Your task to perform on an android device: toggle wifi Image 0: 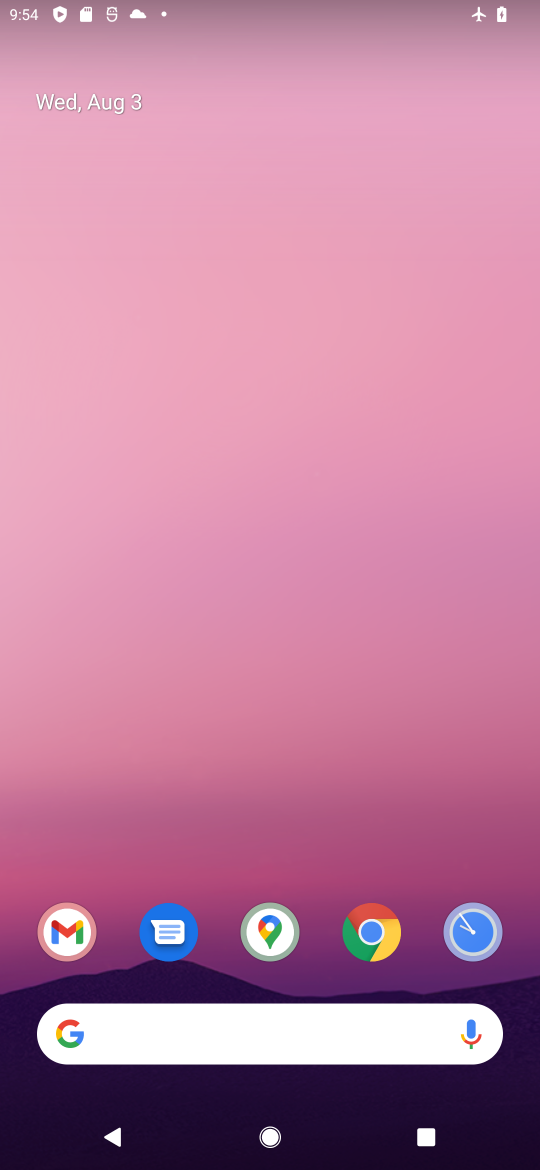
Step 0: drag from (408, 892) to (249, 66)
Your task to perform on an android device: toggle wifi Image 1: 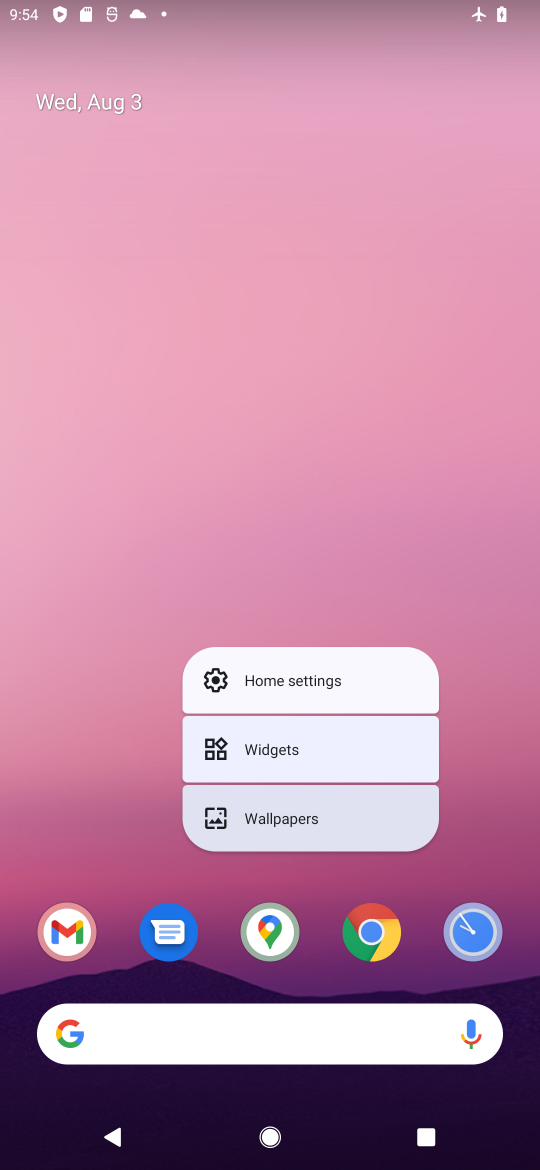
Step 1: drag from (532, 906) to (344, 64)
Your task to perform on an android device: toggle wifi Image 2: 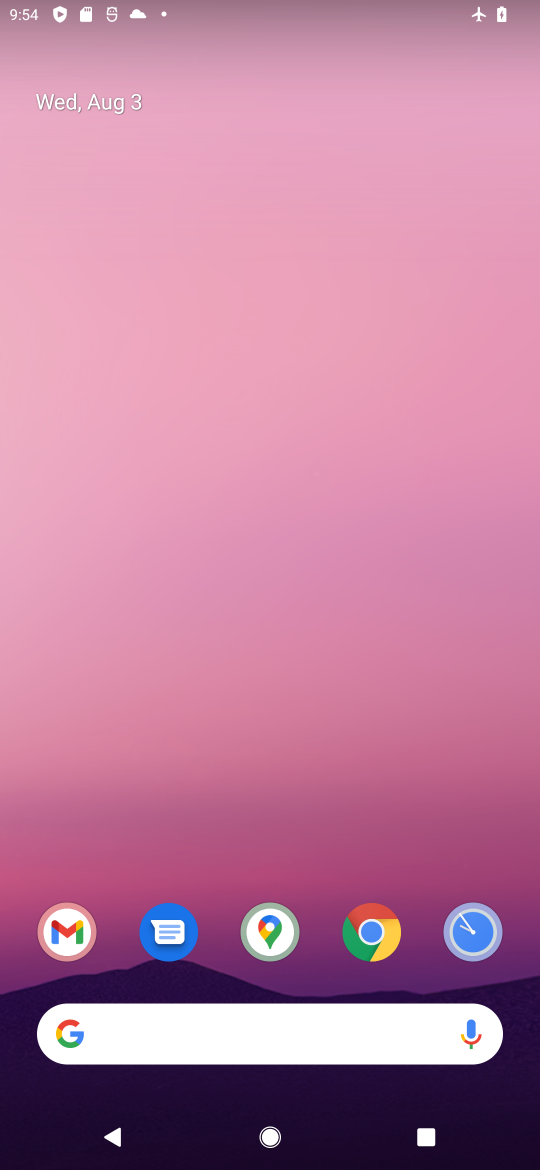
Step 2: drag from (534, 943) to (387, 209)
Your task to perform on an android device: toggle wifi Image 3: 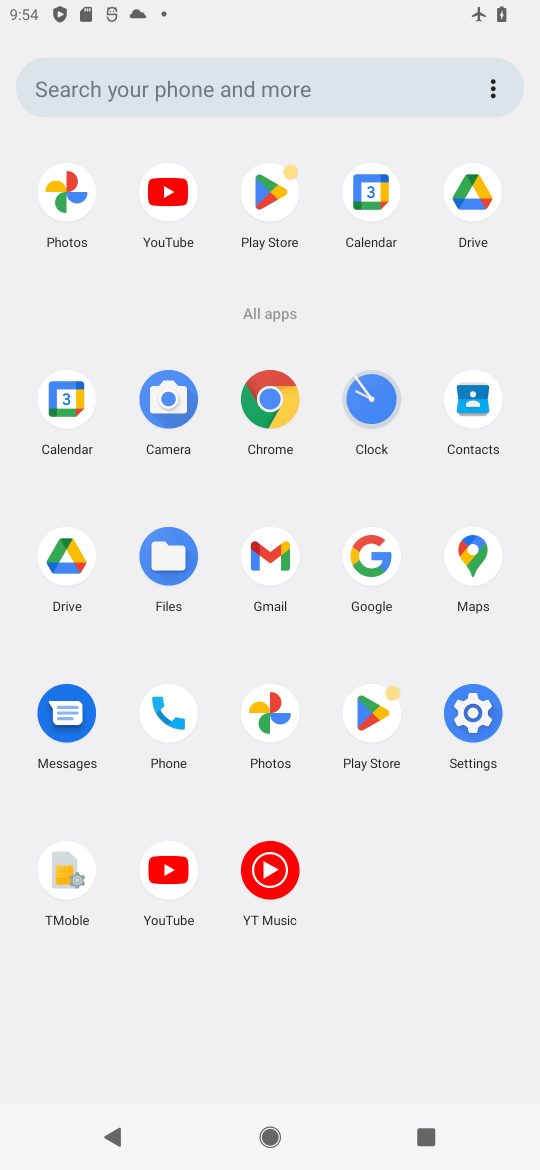
Step 3: click (469, 725)
Your task to perform on an android device: toggle wifi Image 4: 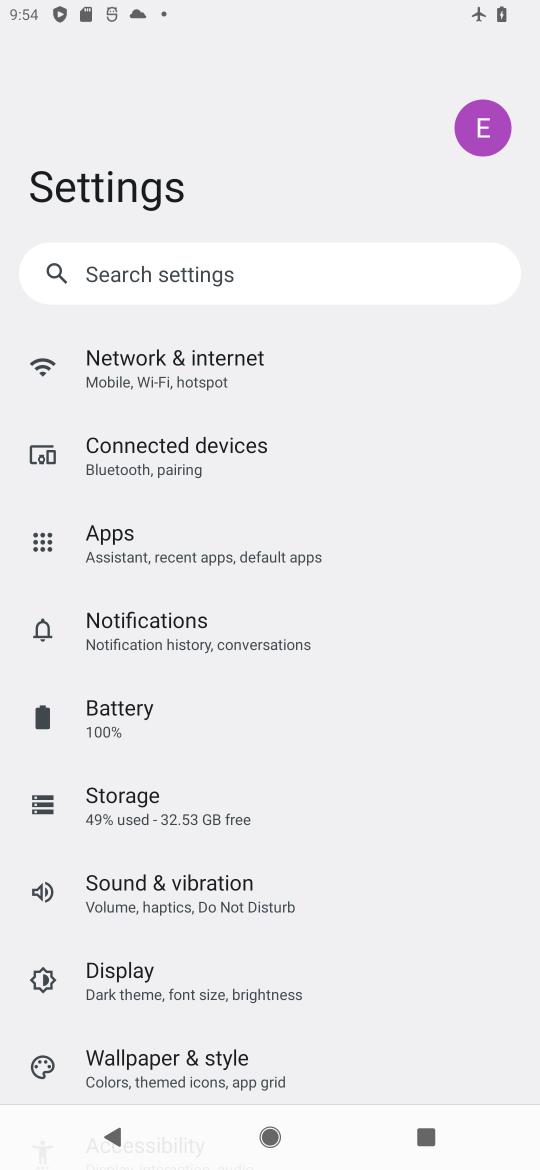
Step 4: click (254, 376)
Your task to perform on an android device: toggle wifi Image 5: 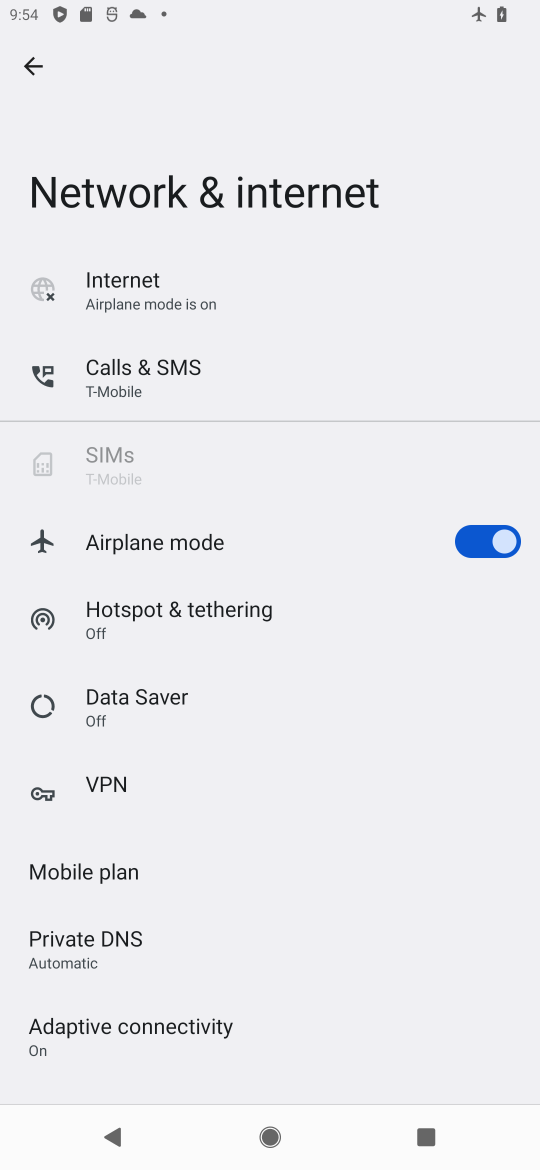
Step 5: click (208, 302)
Your task to perform on an android device: toggle wifi Image 6: 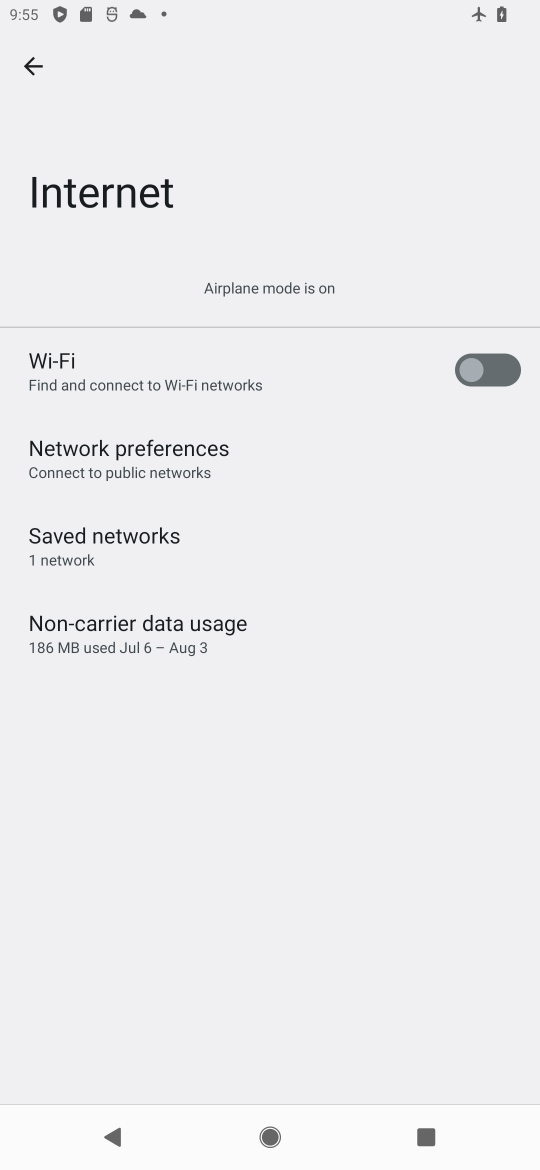
Step 6: click (499, 392)
Your task to perform on an android device: toggle wifi Image 7: 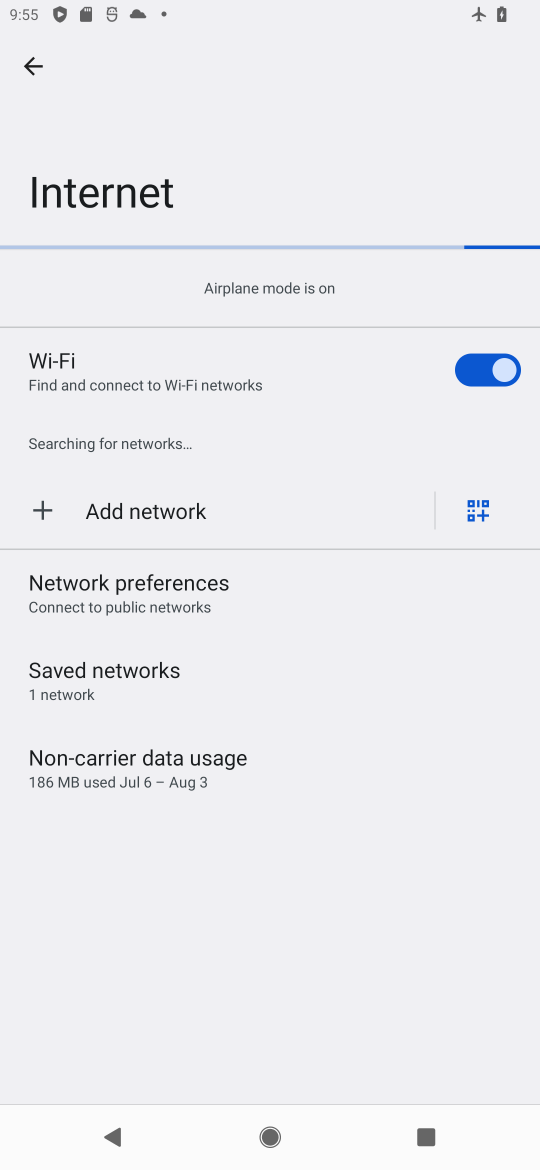
Step 7: task complete